Your task to perform on an android device: open a bookmark in the chrome app Image 0: 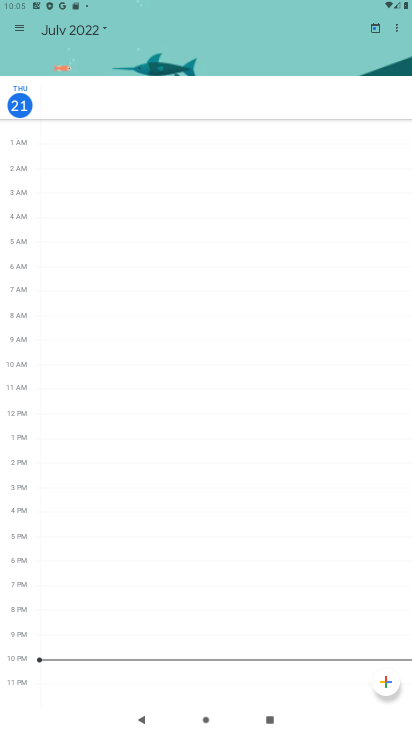
Step 0: press home button
Your task to perform on an android device: open a bookmark in the chrome app Image 1: 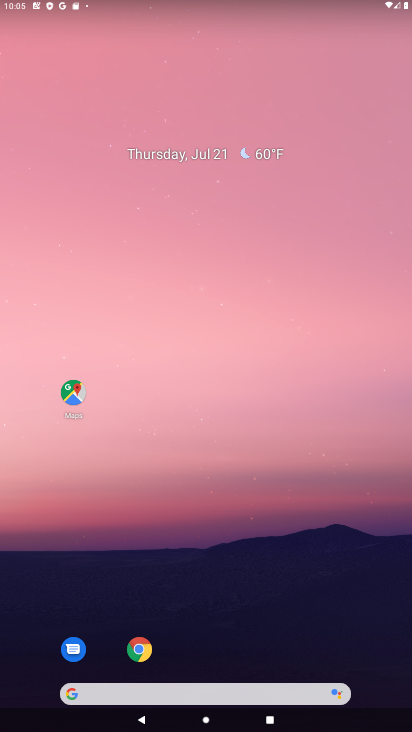
Step 1: click (141, 651)
Your task to perform on an android device: open a bookmark in the chrome app Image 2: 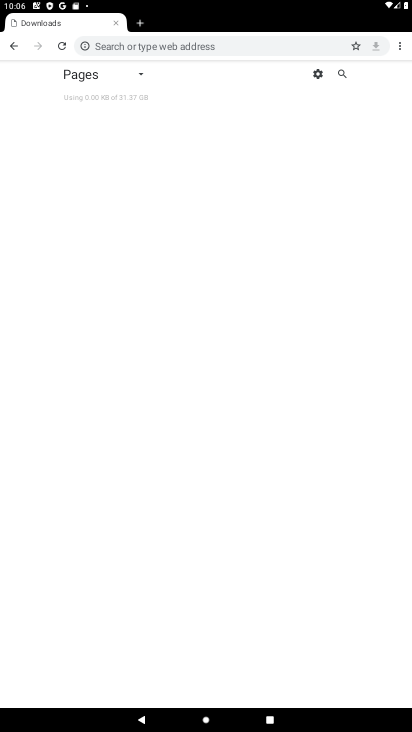
Step 2: click (400, 45)
Your task to perform on an android device: open a bookmark in the chrome app Image 3: 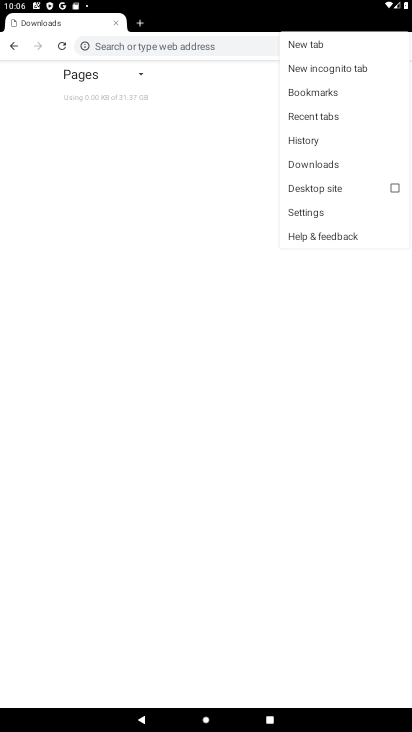
Step 3: click (324, 92)
Your task to perform on an android device: open a bookmark in the chrome app Image 4: 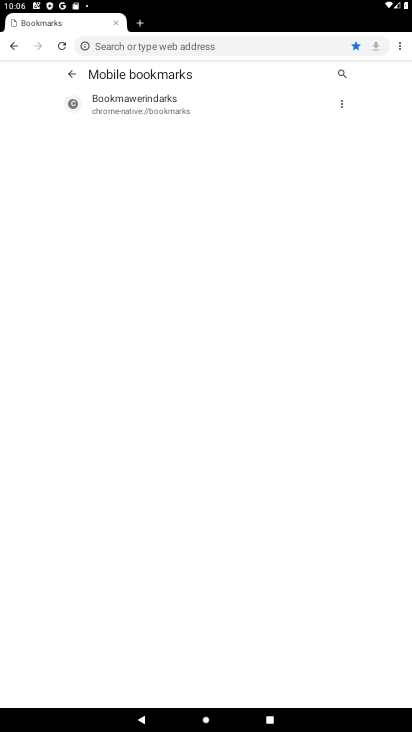
Step 4: task complete